Your task to perform on an android device: Open network settings Image 0: 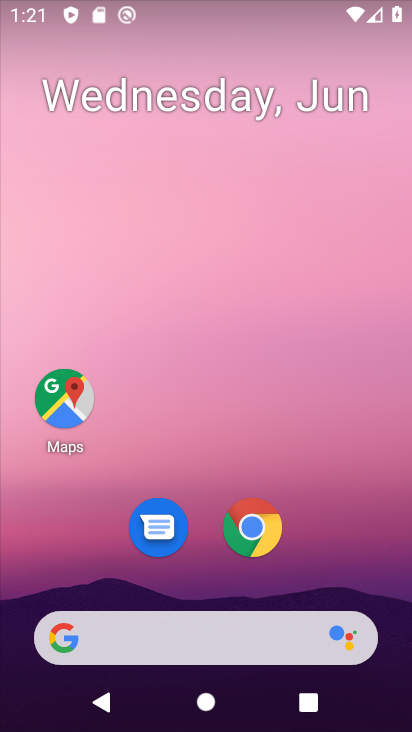
Step 0: drag from (403, 618) to (277, 343)
Your task to perform on an android device: Open network settings Image 1: 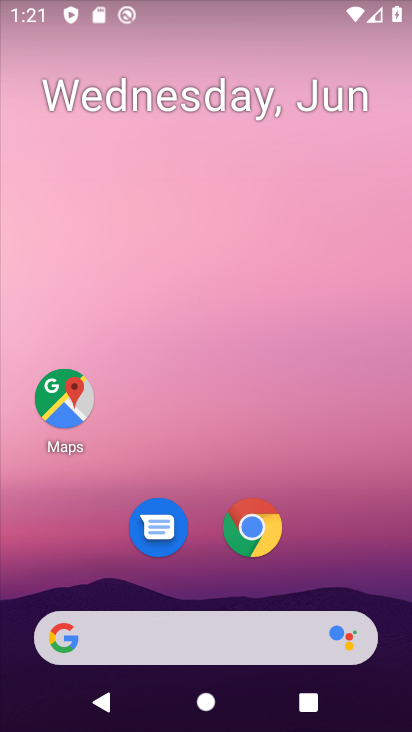
Step 1: drag from (400, 630) to (255, 249)
Your task to perform on an android device: Open network settings Image 2: 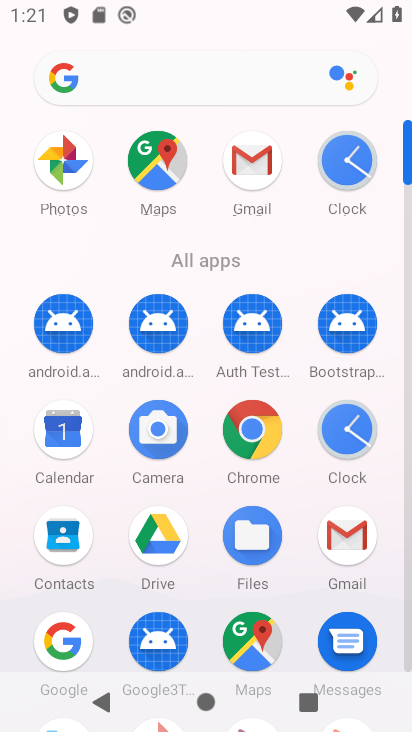
Step 2: click (407, 664)
Your task to perform on an android device: Open network settings Image 3: 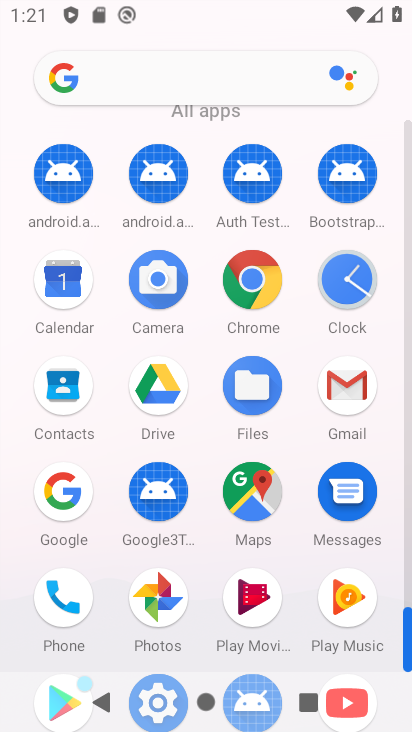
Step 3: drag from (398, 585) to (374, 404)
Your task to perform on an android device: Open network settings Image 4: 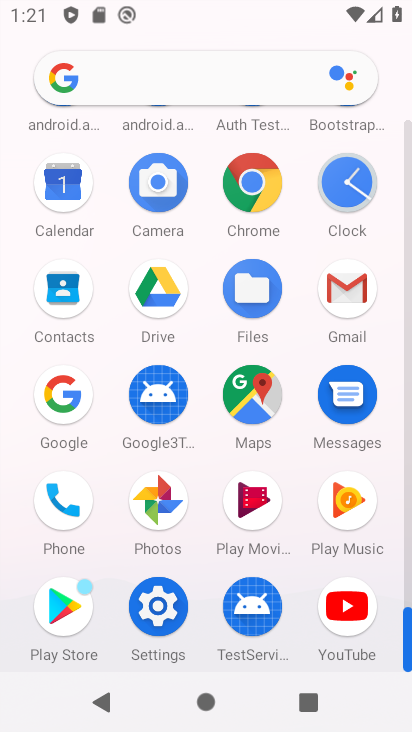
Step 4: click (170, 596)
Your task to perform on an android device: Open network settings Image 5: 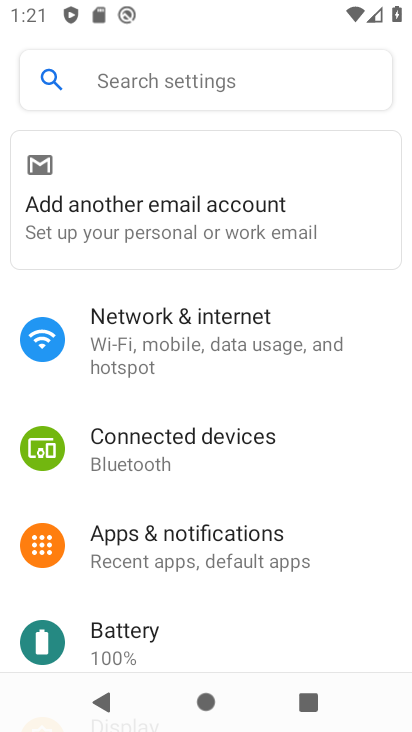
Step 5: click (204, 342)
Your task to perform on an android device: Open network settings Image 6: 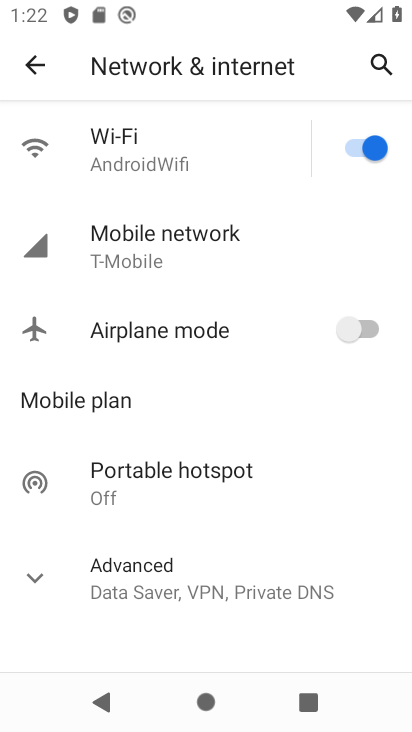
Step 6: task complete